Your task to perform on an android device: Open Yahoo.com Image 0: 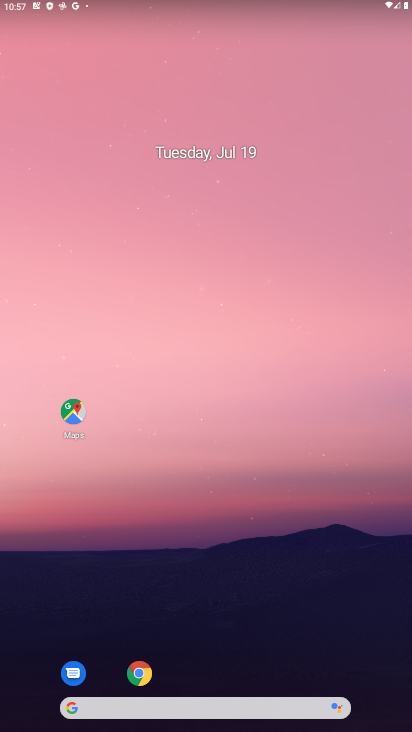
Step 0: drag from (246, 675) to (244, 9)
Your task to perform on an android device: Open Yahoo.com Image 1: 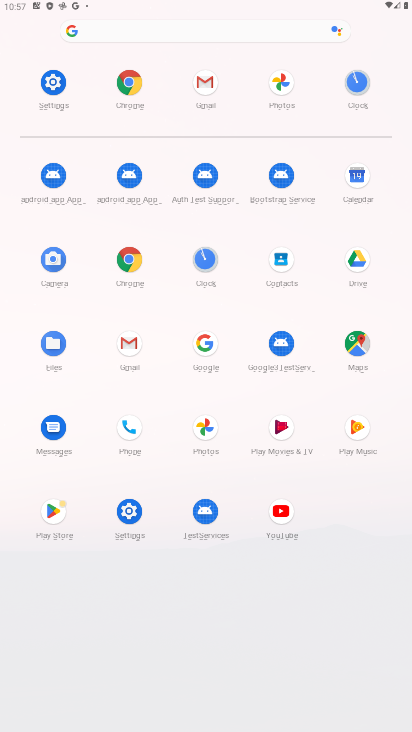
Step 1: click (130, 85)
Your task to perform on an android device: Open Yahoo.com Image 2: 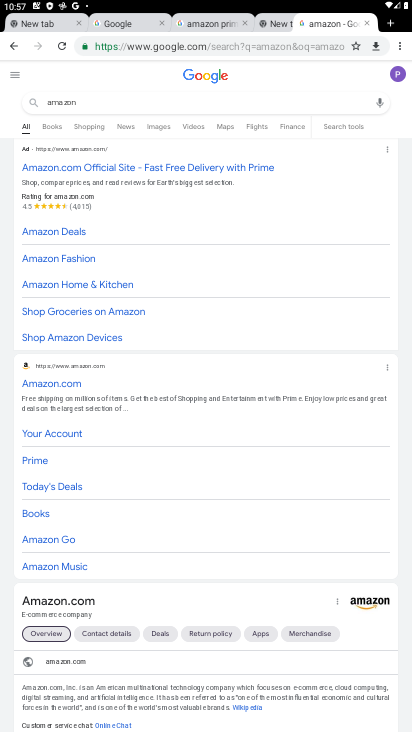
Step 2: type "yahoo.com"
Your task to perform on an android device: Open Yahoo.com Image 3: 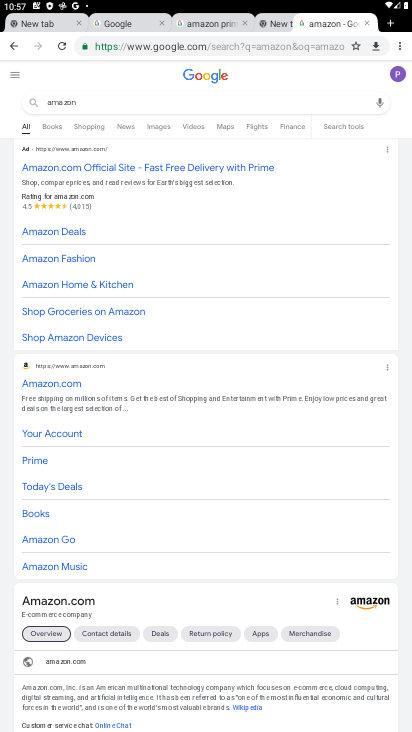
Step 3: task complete